Your task to perform on an android device: Go to Maps Image 0: 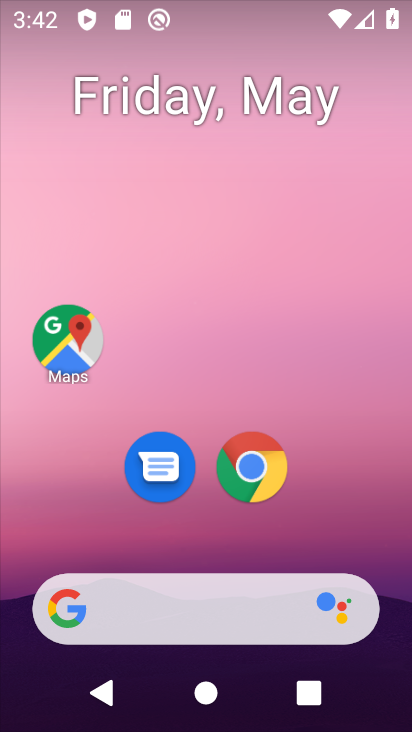
Step 0: click (71, 335)
Your task to perform on an android device: Go to Maps Image 1: 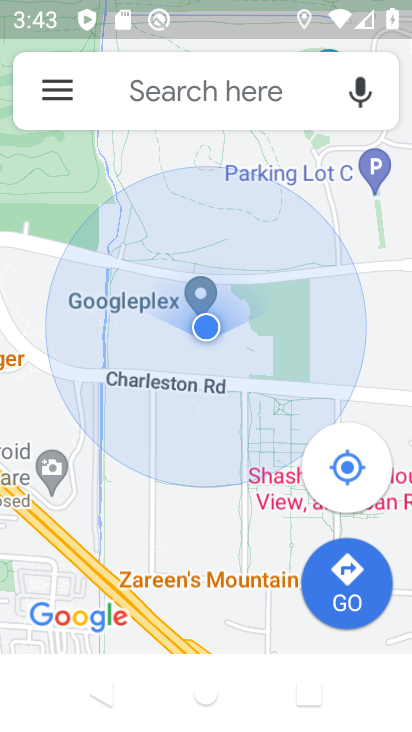
Step 1: task complete